Your task to perform on an android device: turn pop-ups off in chrome Image 0: 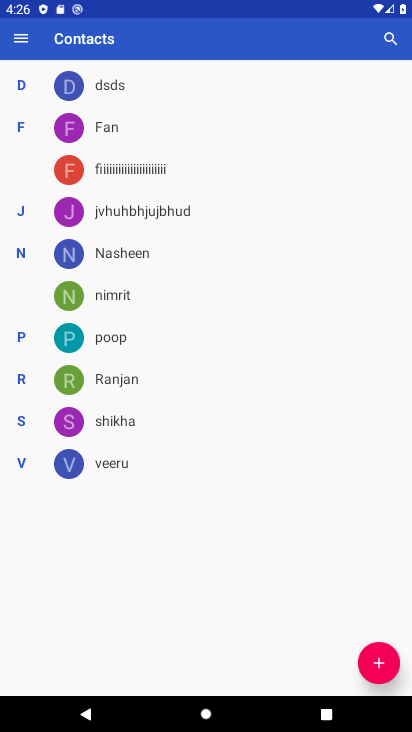
Step 0: press home button
Your task to perform on an android device: turn pop-ups off in chrome Image 1: 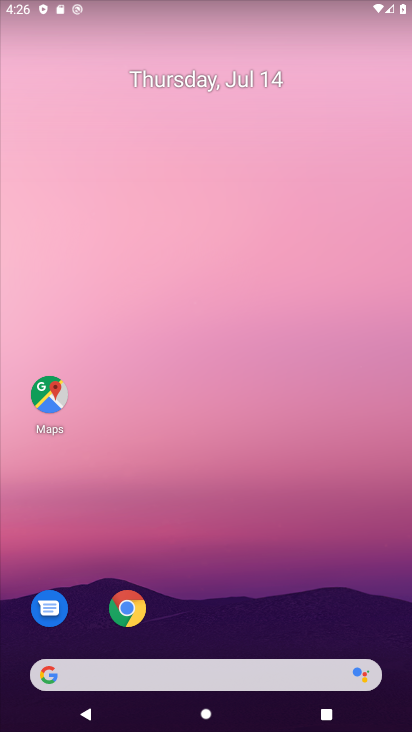
Step 1: click (140, 618)
Your task to perform on an android device: turn pop-ups off in chrome Image 2: 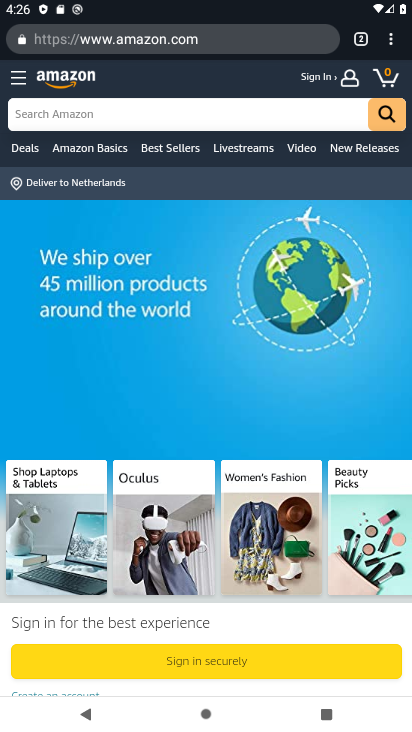
Step 2: click (392, 47)
Your task to perform on an android device: turn pop-ups off in chrome Image 3: 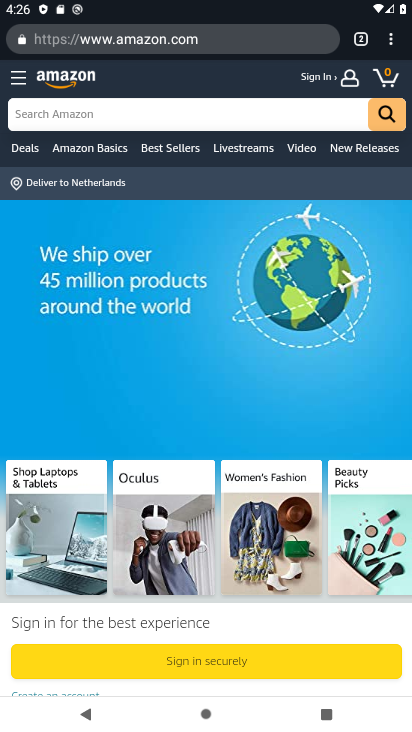
Step 3: click (383, 37)
Your task to perform on an android device: turn pop-ups off in chrome Image 4: 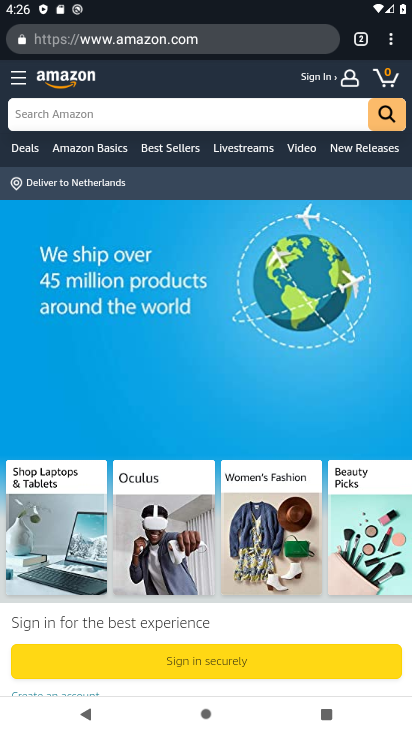
Step 4: drag from (383, 37) to (262, 478)
Your task to perform on an android device: turn pop-ups off in chrome Image 5: 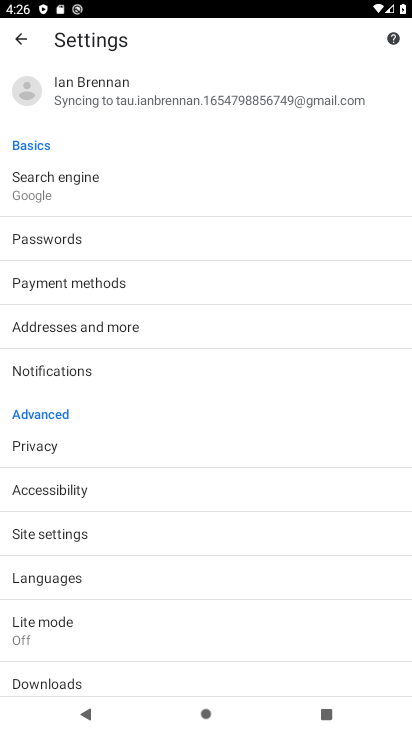
Step 5: click (114, 521)
Your task to perform on an android device: turn pop-ups off in chrome Image 6: 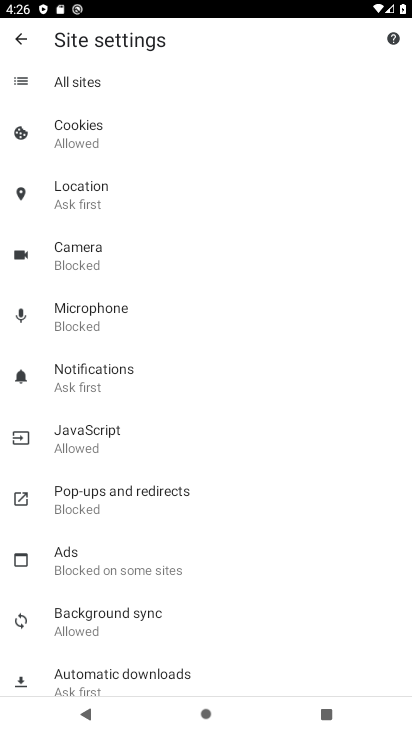
Step 6: click (149, 510)
Your task to perform on an android device: turn pop-ups off in chrome Image 7: 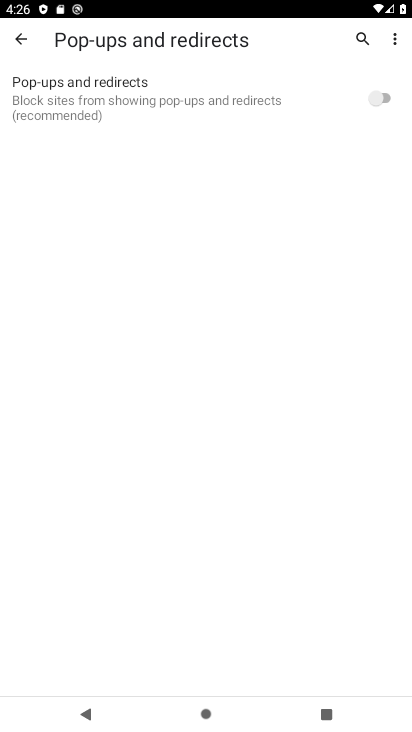
Step 7: task complete